Your task to perform on an android device: check out phone information Image 0: 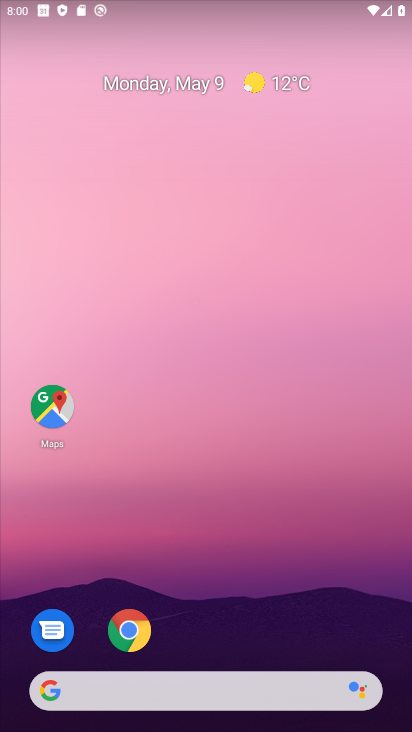
Step 0: drag from (162, 663) to (222, 262)
Your task to perform on an android device: check out phone information Image 1: 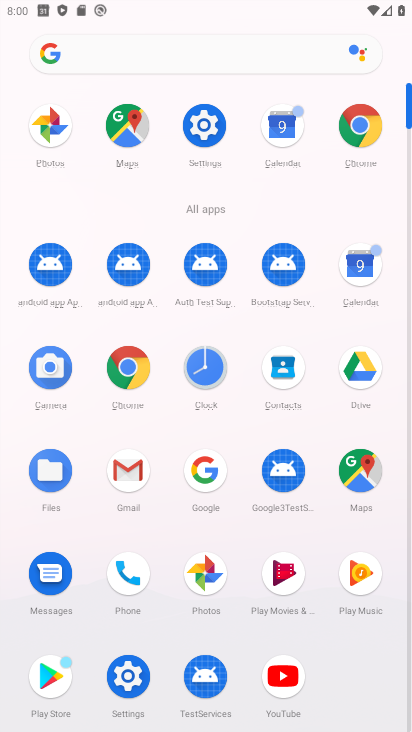
Step 1: click (134, 574)
Your task to perform on an android device: check out phone information Image 2: 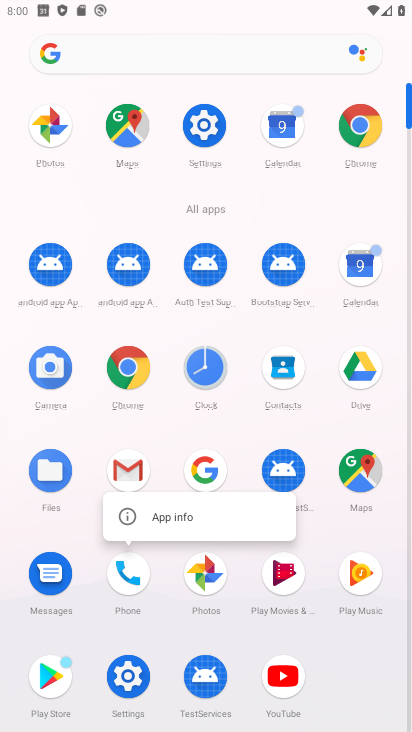
Step 2: click (159, 516)
Your task to perform on an android device: check out phone information Image 3: 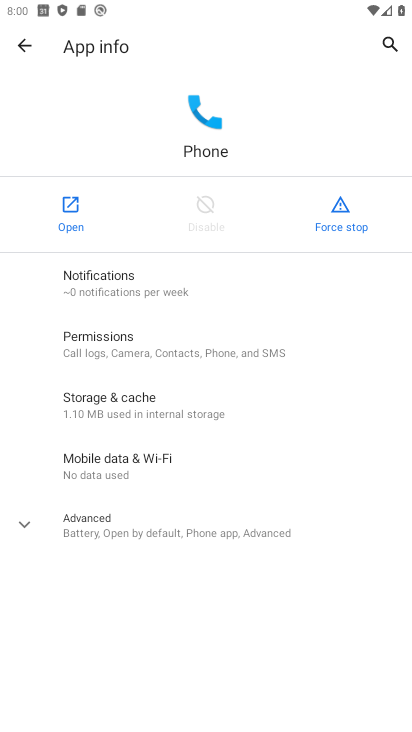
Step 3: click (65, 524)
Your task to perform on an android device: check out phone information Image 4: 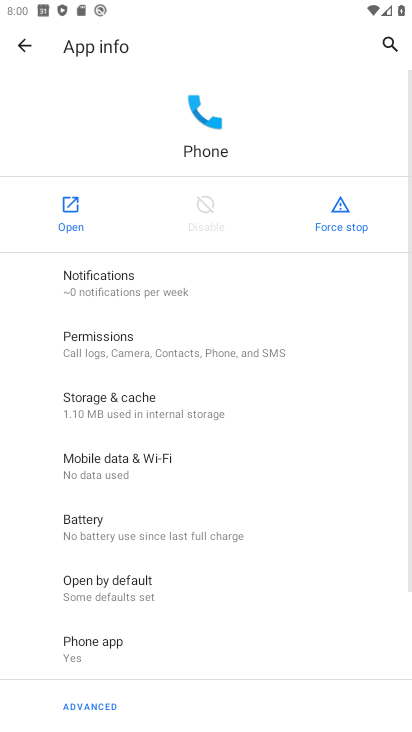
Step 4: task complete